Your task to perform on an android device: delete the emails in spam in the gmail app Image 0: 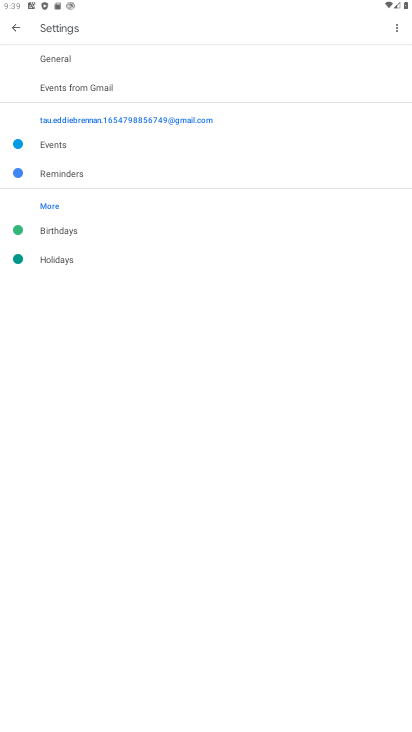
Step 0: press home button
Your task to perform on an android device: delete the emails in spam in the gmail app Image 1: 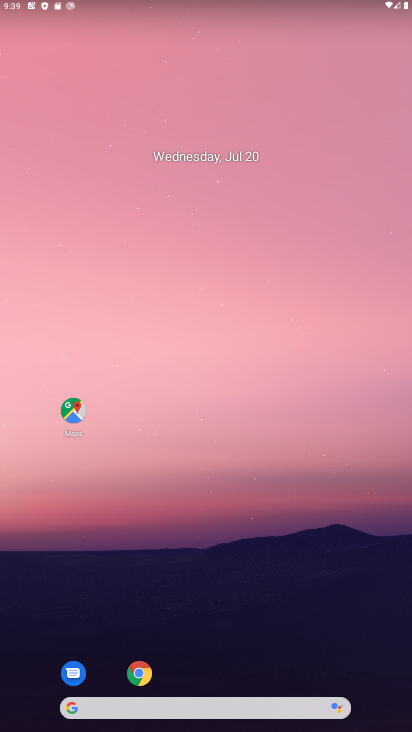
Step 1: drag from (202, 705) to (235, 52)
Your task to perform on an android device: delete the emails in spam in the gmail app Image 2: 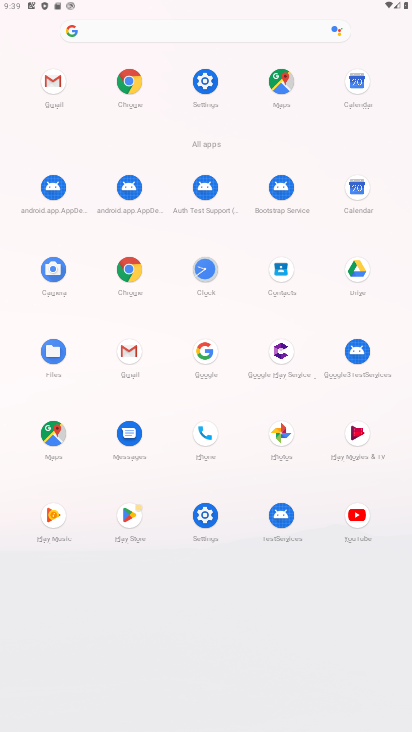
Step 2: click (52, 79)
Your task to perform on an android device: delete the emails in spam in the gmail app Image 3: 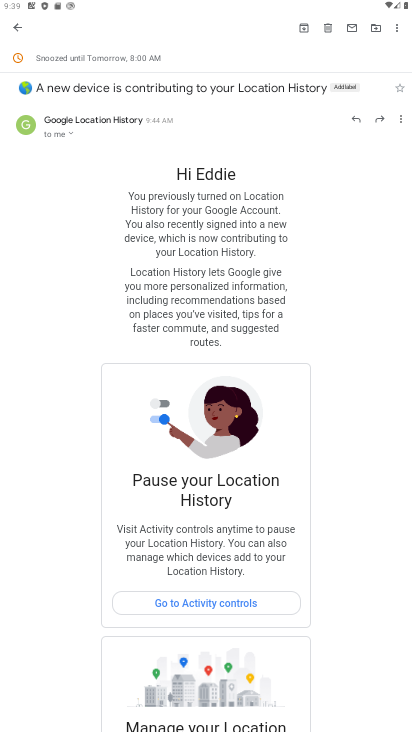
Step 3: press back button
Your task to perform on an android device: delete the emails in spam in the gmail app Image 4: 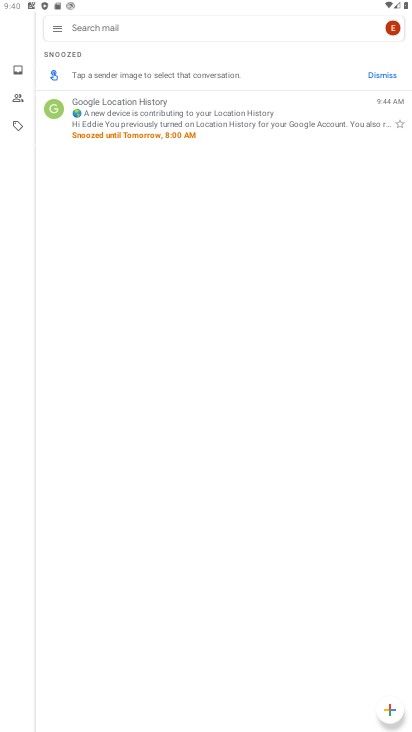
Step 4: click (54, 34)
Your task to perform on an android device: delete the emails in spam in the gmail app Image 5: 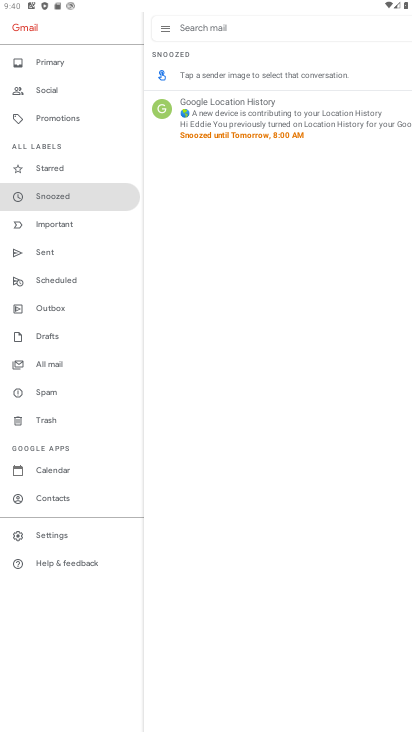
Step 5: click (36, 392)
Your task to perform on an android device: delete the emails in spam in the gmail app Image 6: 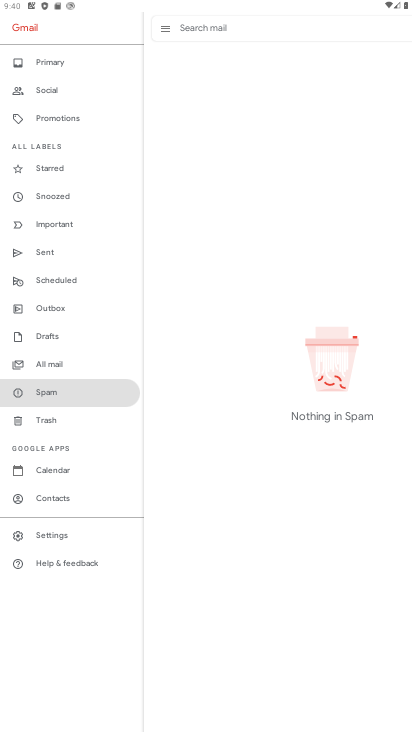
Step 6: task complete